Your task to perform on an android device: Show me popular videos on Youtube Image 0: 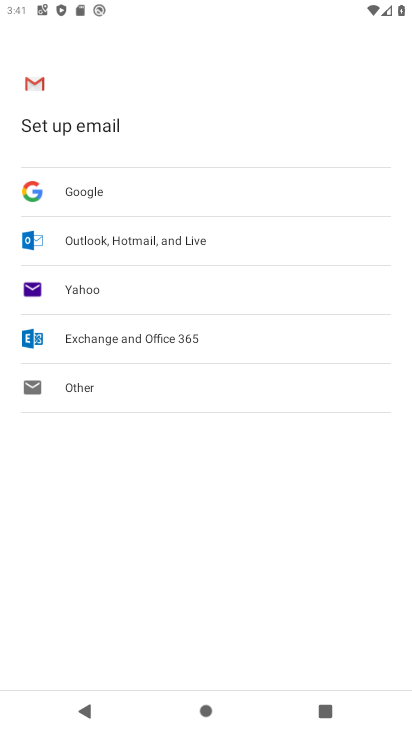
Step 0: press home button
Your task to perform on an android device: Show me popular videos on Youtube Image 1: 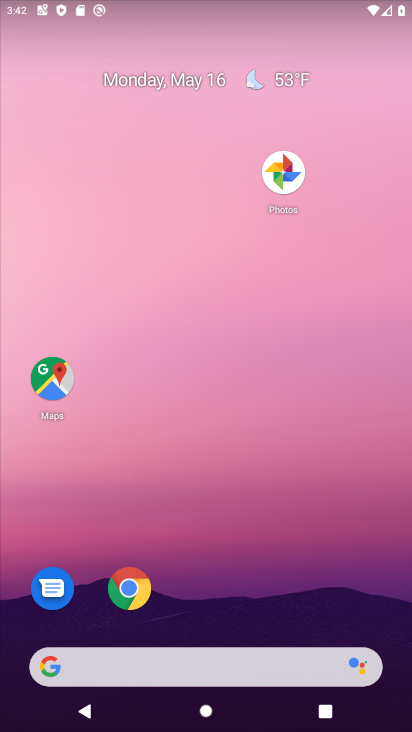
Step 1: drag from (170, 623) to (174, 68)
Your task to perform on an android device: Show me popular videos on Youtube Image 2: 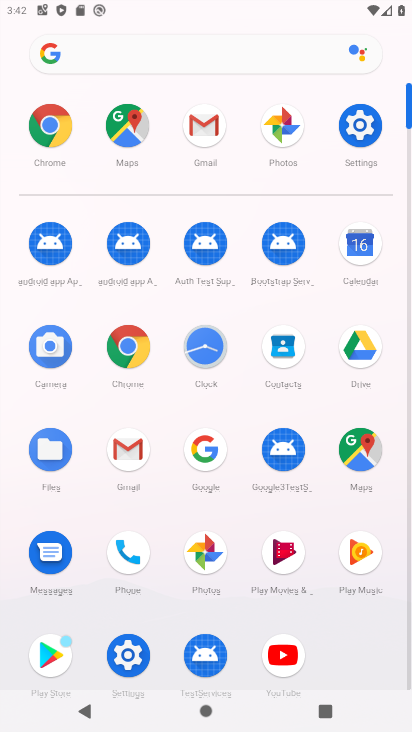
Step 2: click (269, 662)
Your task to perform on an android device: Show me popular videos on Youtube Image 3: 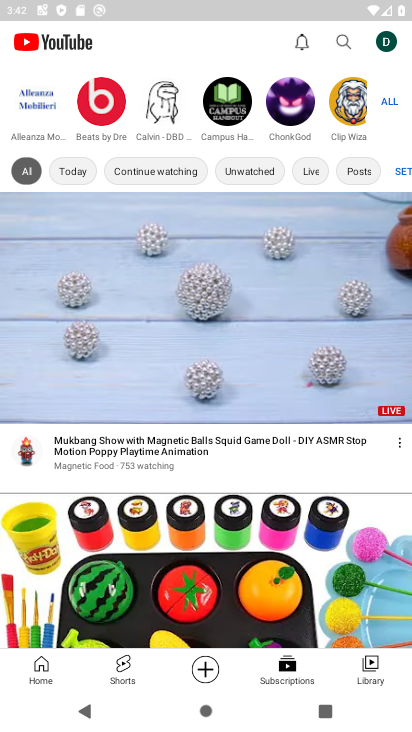
Step 3: drag from (127, 594) to (113, 695)
Your task to perform on an android device: Show me popular videos on Youtube Image 4: 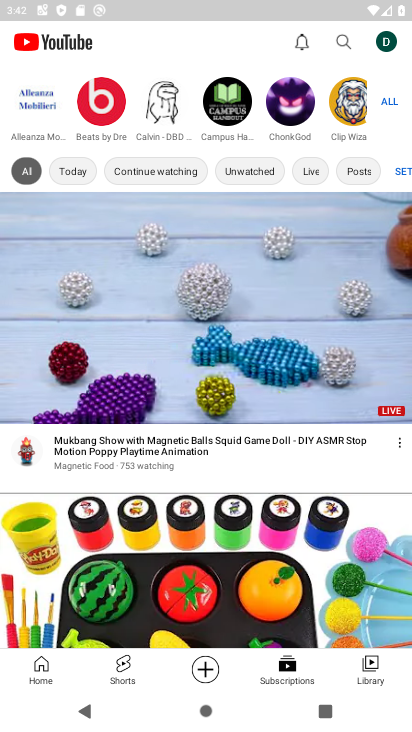
Step 4: drag from (133, 151) to (238, 724)
Your task to perform on an android device: Show me popular videos on Youtube Image 5: 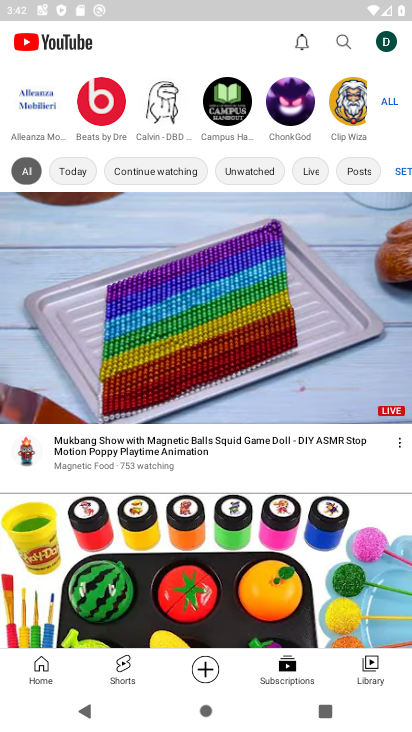
Step 5: drag from (134, 100) to (155, 682)
Your task to perform on an android device: Show me popular videos on Youtube Image 6: 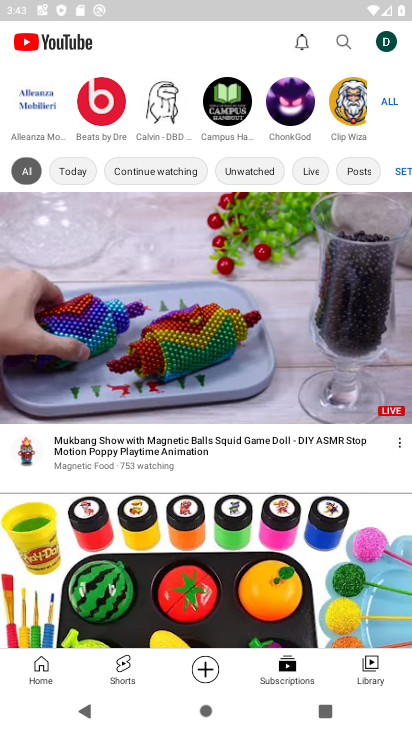
Step 6: drag from (131, 85) to (196, 564)
Your task to perform on an android device: Show me popular videos on Youtube Image 7: 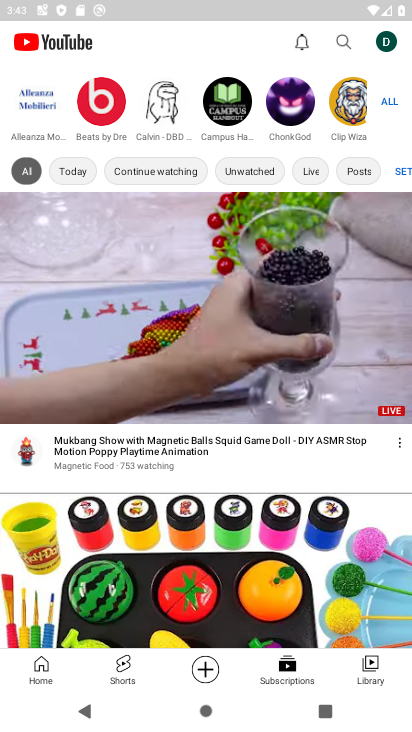
Step 7: drag from (155, 84) to (194, 511)
Your task to perform on an android device: Show me popular videos on Youtube Image 8: 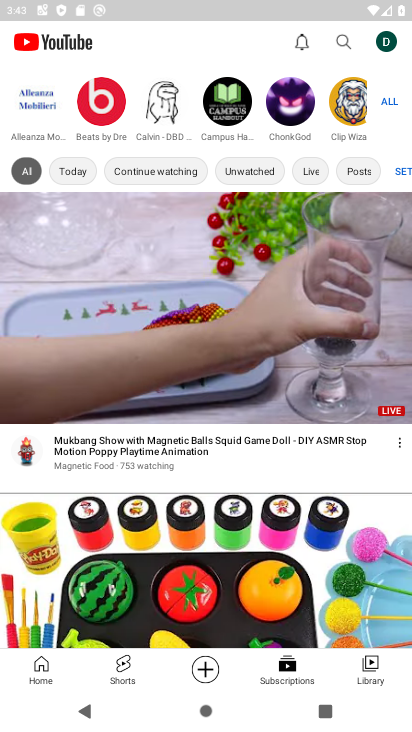
Step 8: click (48, 666)
Your task to perform on an android device: Show me popular videos on Youtube Image 9: 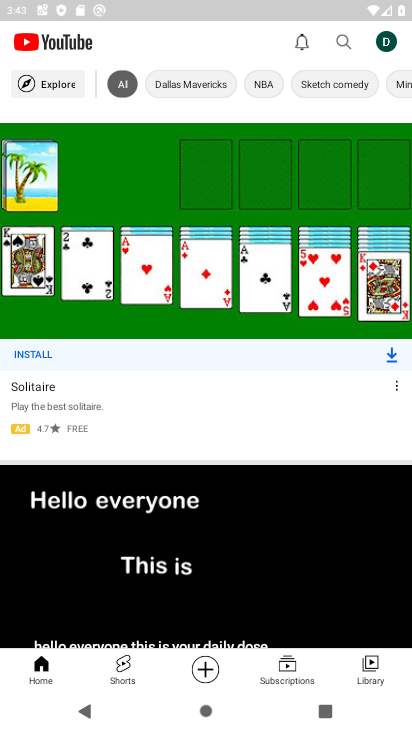
Step 9: click (42, 88)
Your task to perform on an android device: Show me popular videos on Youtube Image 10: 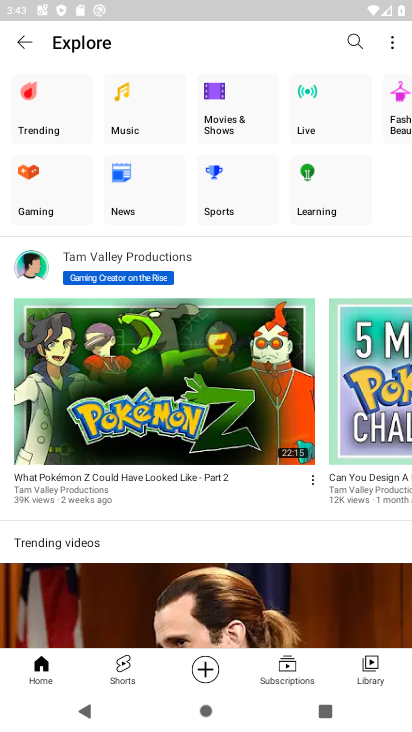
Step 10: click (42, 88)
Your task to perform on an android device: Show me popular videos on Youtube Image 11: 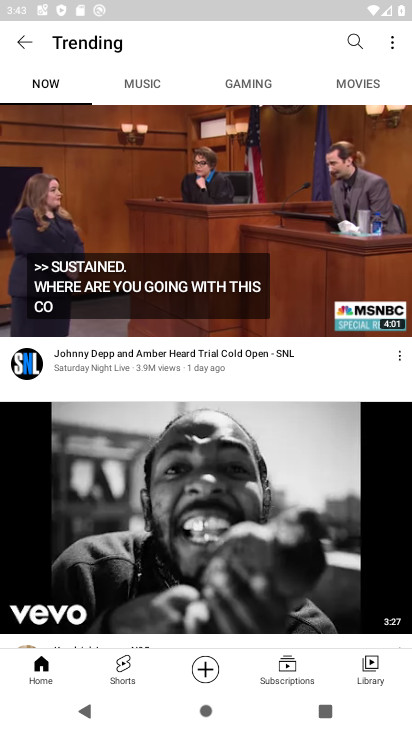
Step 11: task complete